Your task to perform on an android device: refresh tabs in the chrome app Image 0: 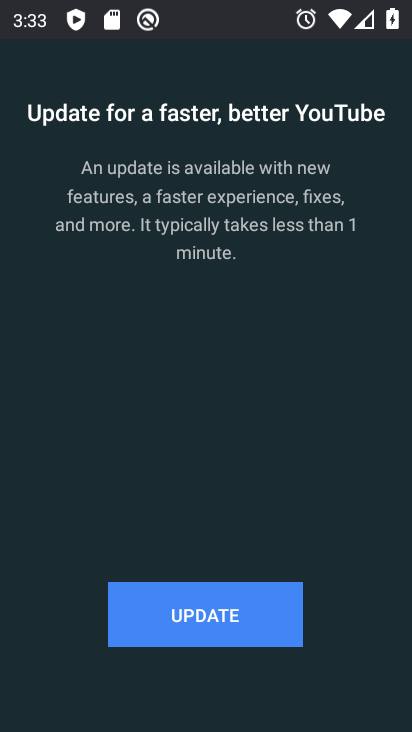
Step 0: press home button
Your task to perform on an android device: refresh tabs in the chrome app Image 1: 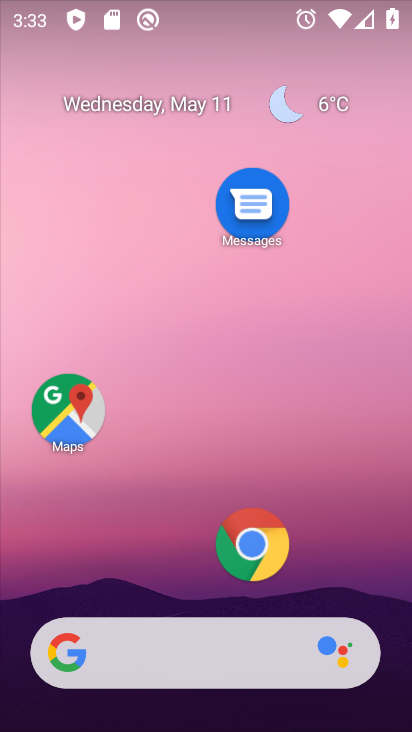
Step 1: click (258, 548)
Your task to perform on an android device: refresh tabs in the chrome app Image 2: 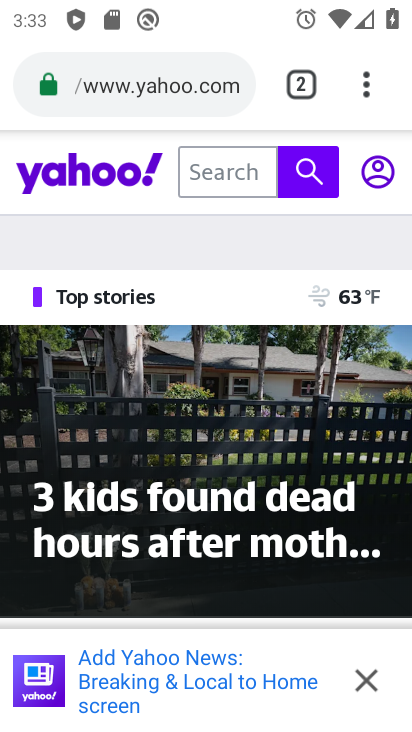
Step 2: task complete